Your task to perform on an android device: Go to wifi settings Image 0: 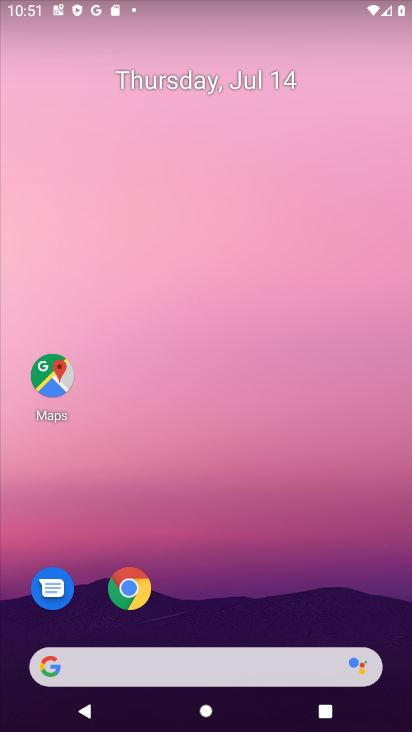
Step 0: drag from (242, 605) to (91, 240)
Your task to perform on an android device: Go to wifi settings Image 1: 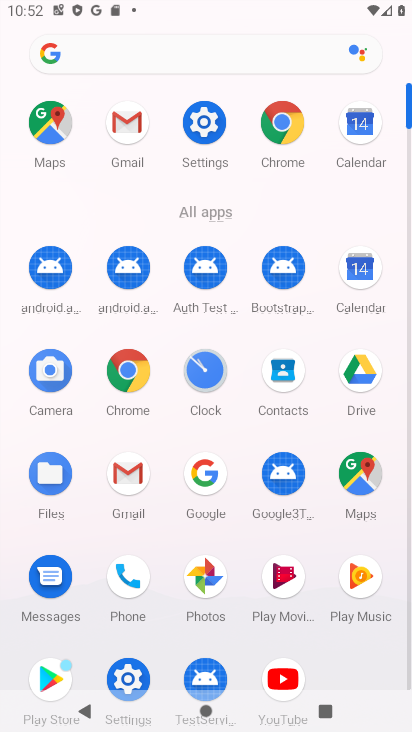
Step 1: drag from (389, 16) to (393, 484)
Your task to perform on an android device: Go to wifi settings Image 2: 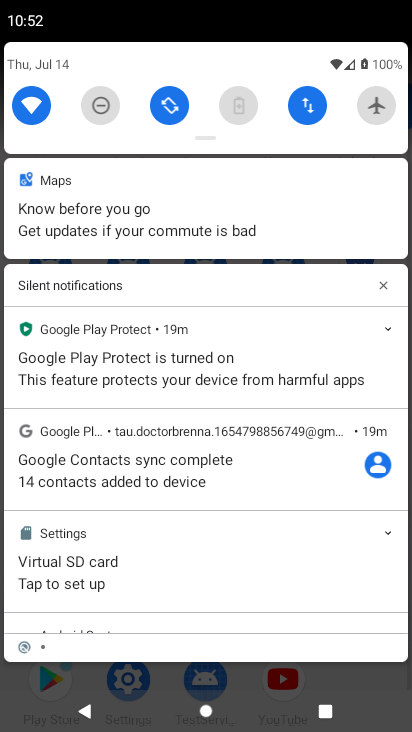
Step 2: click (17, 96)
Your task to perform on an android device: Go to wifi settings Image 3: 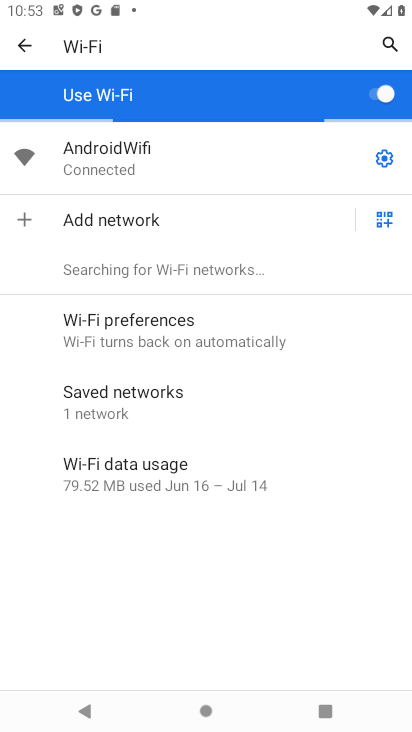
Step 3: task complete